Your task to perform on an android device: turn smart compose on in the gmail app Image 0: 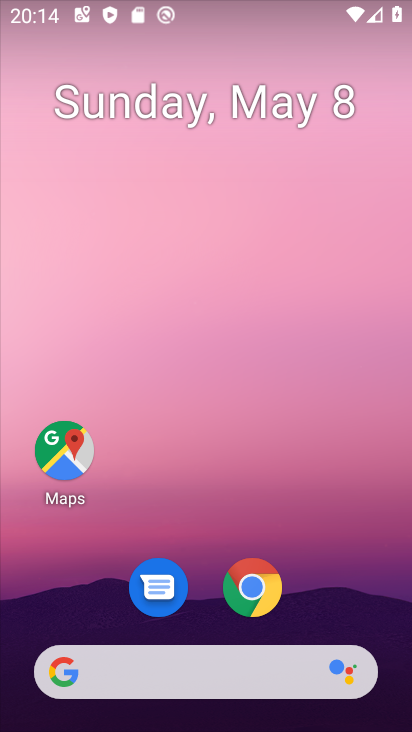
Step 0: drag from (204, 512) to (183, 41)
Your task to perform on an android device: turn smart compose on in the gmail app Image 1: 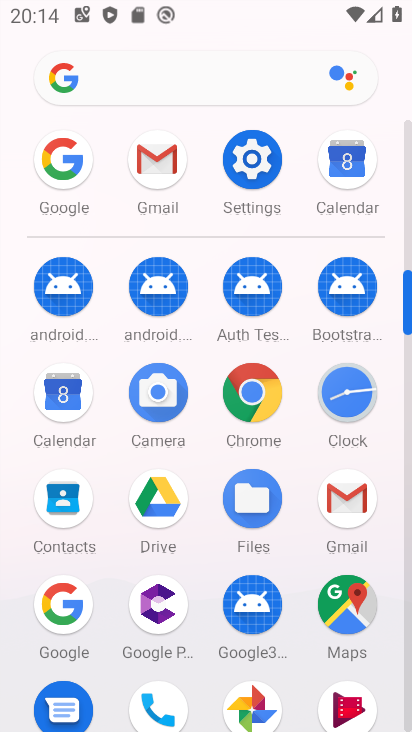
Step 1: click (154, 157)
Your task to perform on an android device: turn smart compose on in the gmail app Image 2: 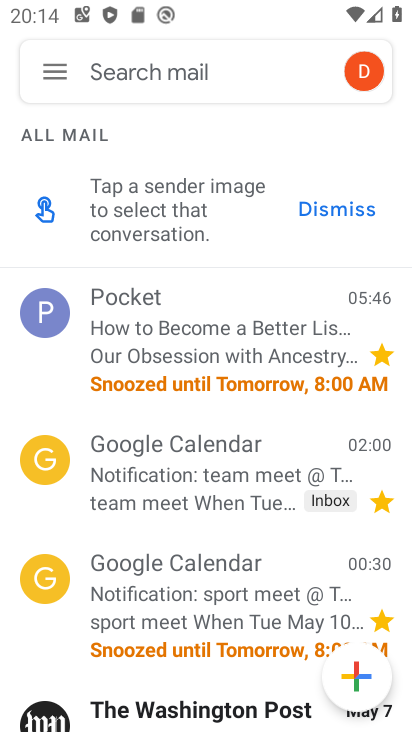
Step 2: click (56, 74)
Your task to perform on an android device: turn smart compose on in the gmail app Image 3: 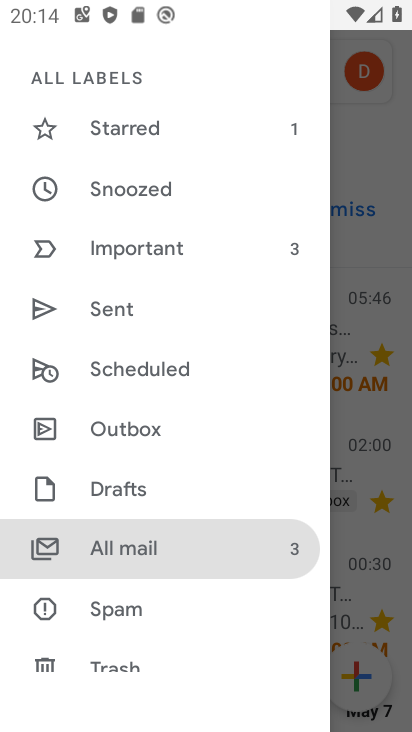
Step 3: drag from (189, 472) to (178, 232)
Your task to perform on an android device: turn smart compose on in the gmail app Image 4: 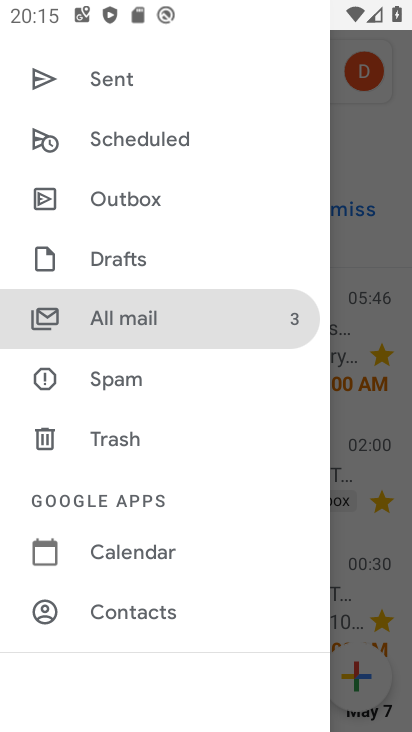
Step 4: drag from (198, 521) to (202, 300)
Your task to perform on an android device: turn smart compose on in the gmail app Image 5: 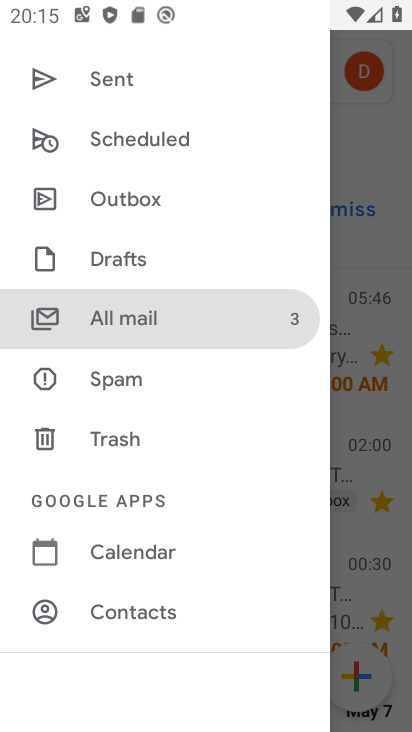
Step 5: drag from (206, 572) to (242, 229)
Your task to perform on an android device: turn smart compose on in the gmail app Image 6: 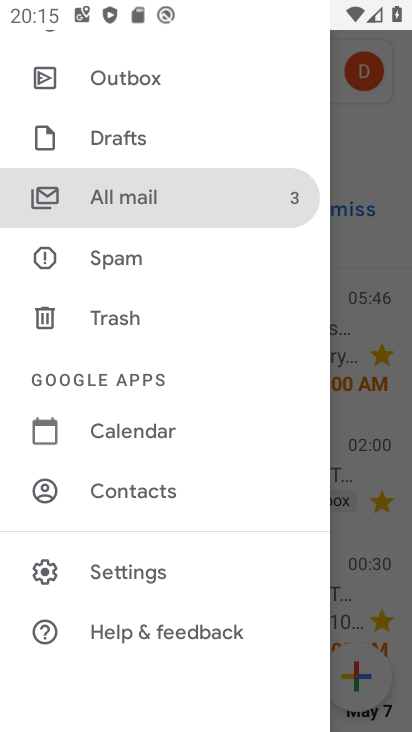
Step 6: click (144, 579)
Your task to perform on an android device: turn smart compose on in the gmail app Image 7: 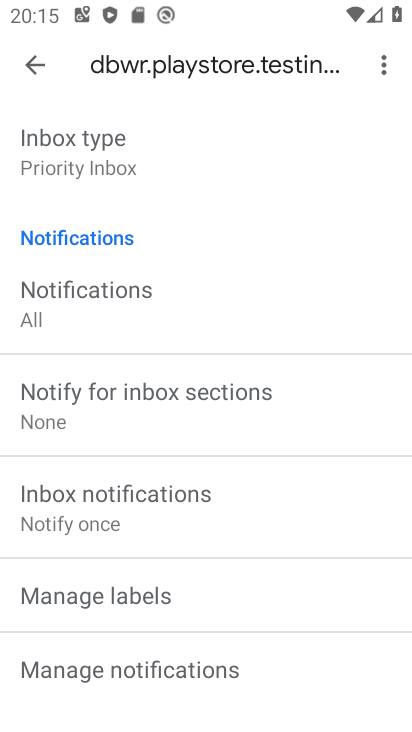
Step 7: task complete